Your task to perform on an android device: turn off translation in the chrome app Image 0: 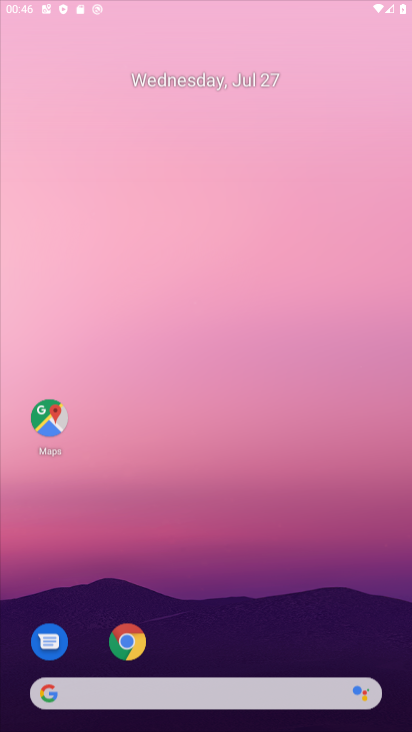
Step 0: drag from (240, 575) to (378, 117)
Your task to perform on an android device: turn off translation in the chrome app Image 1: 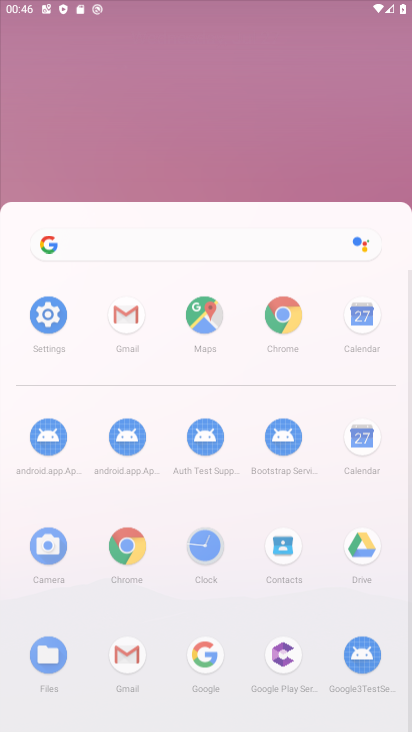
Step 1: drag from (301, 267) to (301, 44)
Your task to perform on an android device: turn off translation in the chrome app Image 2: 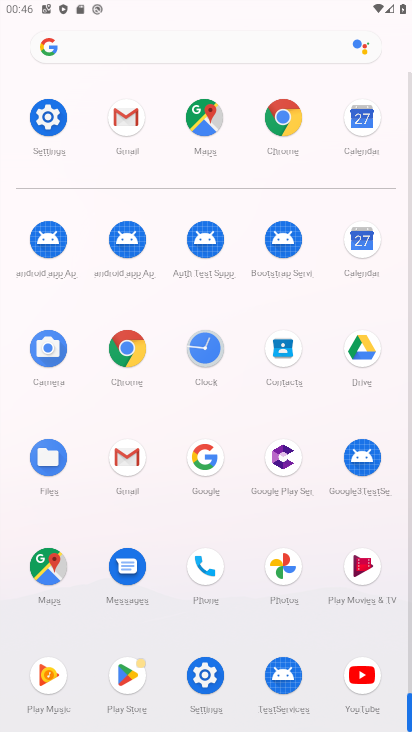
Step 2: click (116, 348)
Your task to perform on an android device: turn off translation in the chrome app Image 3: 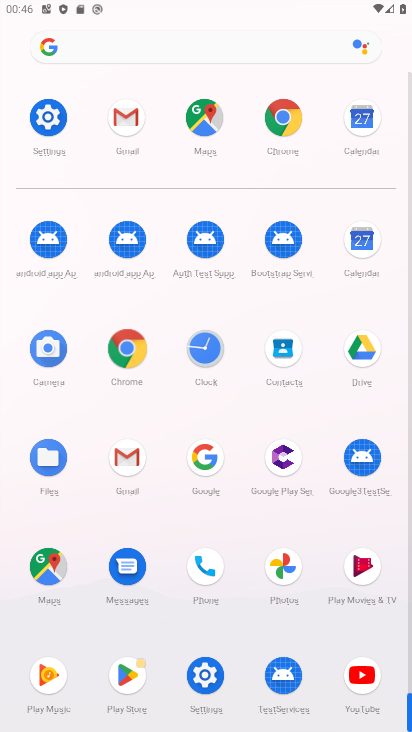
Step 3: click (127, 341)
Your task to perform on an android device: turn off translation in the chrome app Image 4: 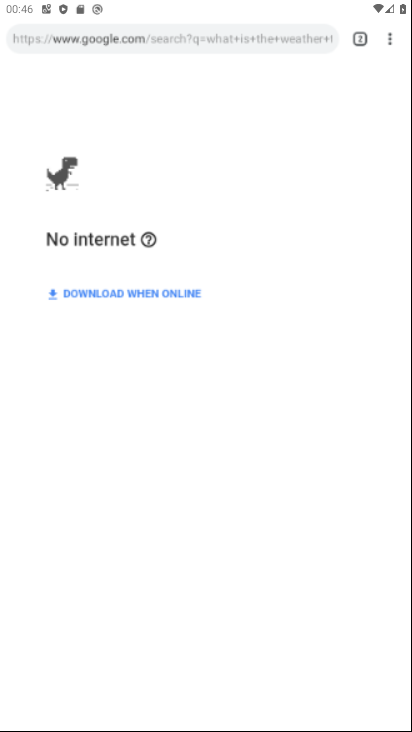
Step 4: click (137, 349)
Your task to perform on an android device: turn off translation in the chrome app Image 5: 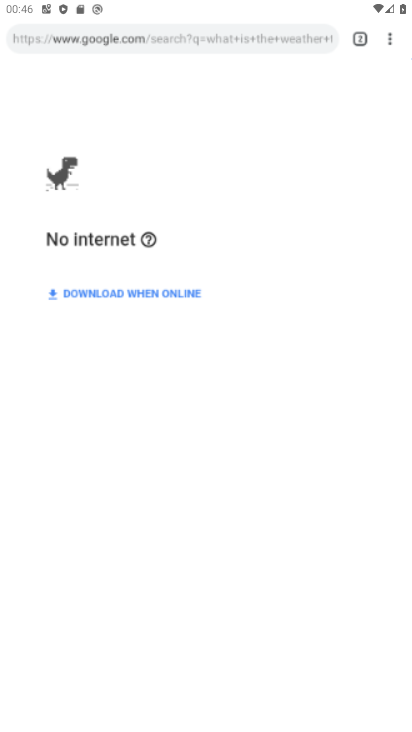
Step 5: click (141, 353)
Your task to perform on an android device: turn off translation in the chrome app Image 6: 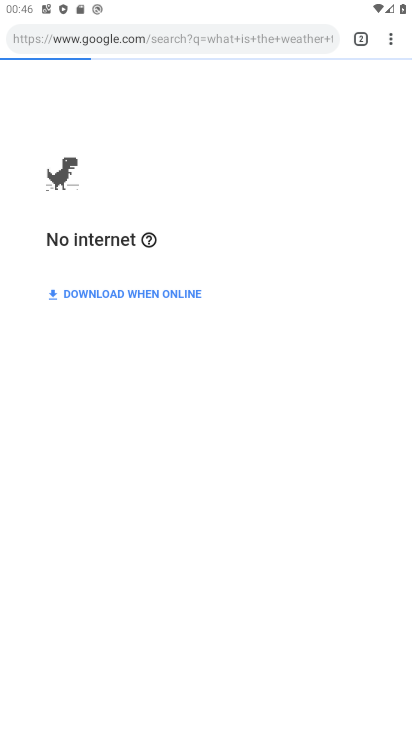
Step 6: click (136, 350)
Your task to perform on an android device: turn off translation in the chrome app Image 7: 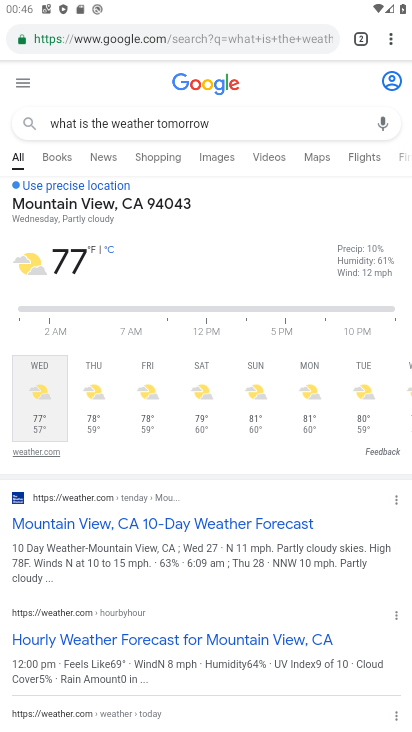
Step 7: drag from (384, 42) to (254, 429)
Your task to perform on an android device: turn off translation in the chrome app Image 8: 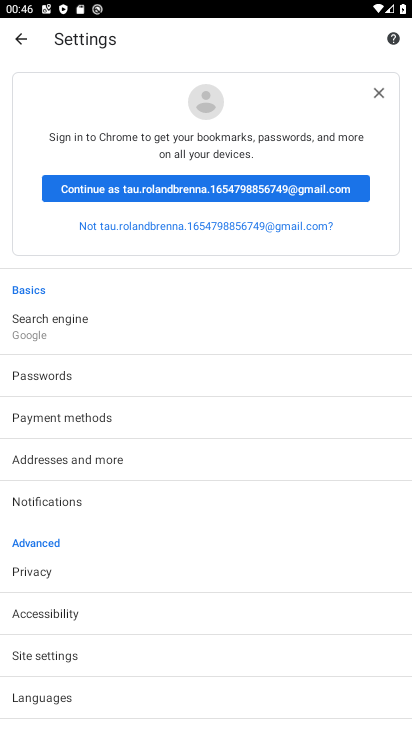
Step 8: drag from (100, 633) to (95, 291)
Your task to perform on an android device: turn off translation in the chrome app Image 9: 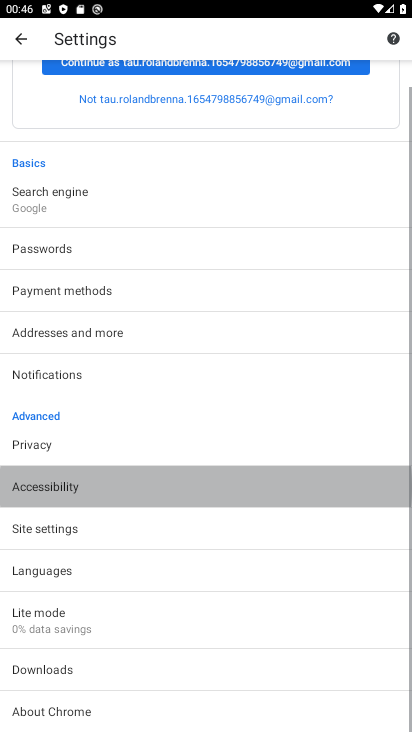
Step 9: drag from (137, 551) to (193, 307)
Your task to perform on an android device: turn off translation in the chrome app Image 10: 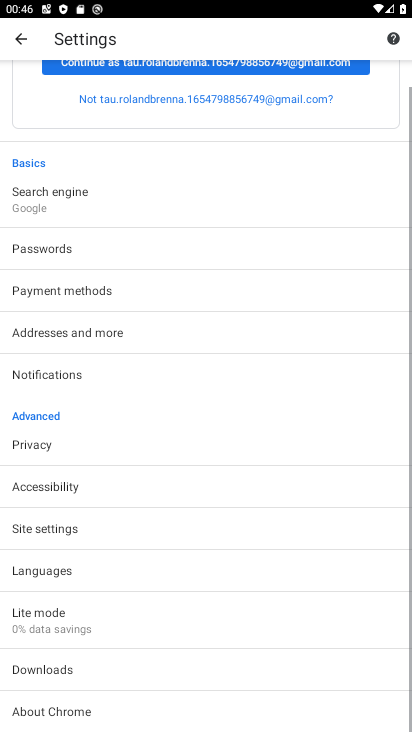
Step 10: click (90, 575)
Your task to perform on an android device: turn off translation in the chrome app Image 11: 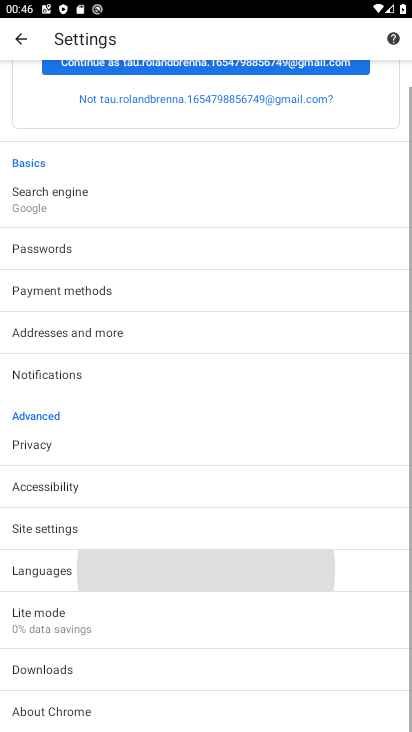
Step 11: click (89, 574)
Your task to perform on an android device: turn off translation in the chrome app Image 12: 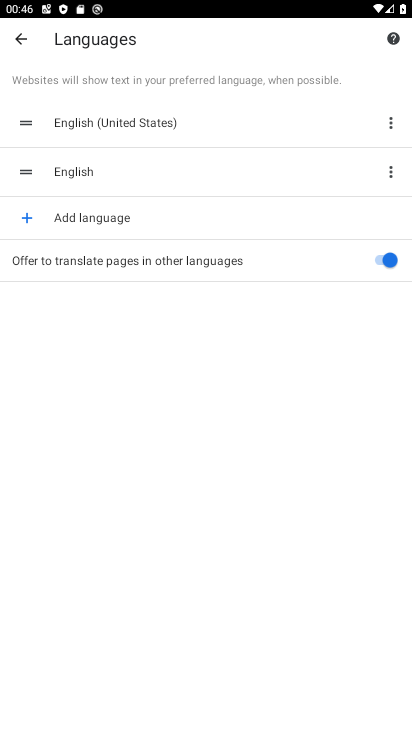
Step 12: click (390, 265)
Your task to perform on an android device: turn off translation in the chrome app Image 13: 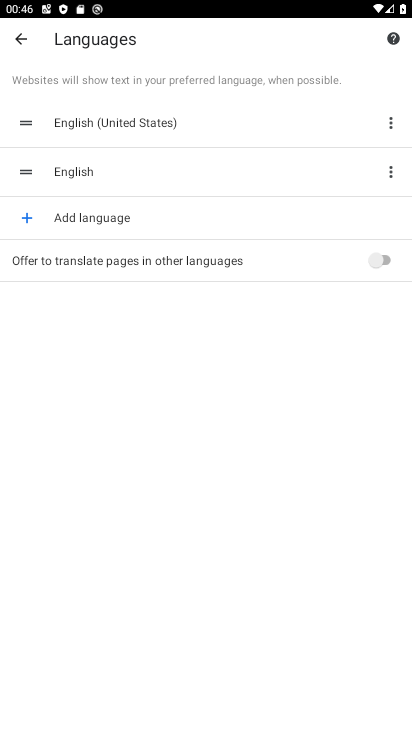
Step 13: task complete